Your task to perform on an android device: set default search engine in the chrome app Image 0: 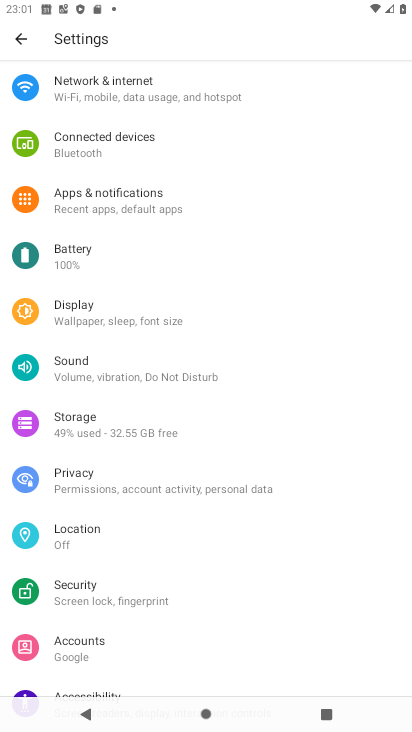
Step 0: press home button
Your task to perform on an android device: set default search engine in the chrome app Image 1: 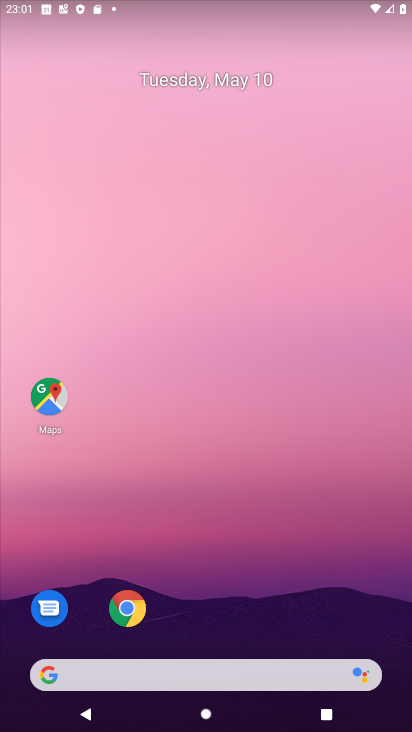
Step 1: drag from (251, 601) to (272, 233)
Your task to perform on an android device: set default search engine in the chrome app Image 2: 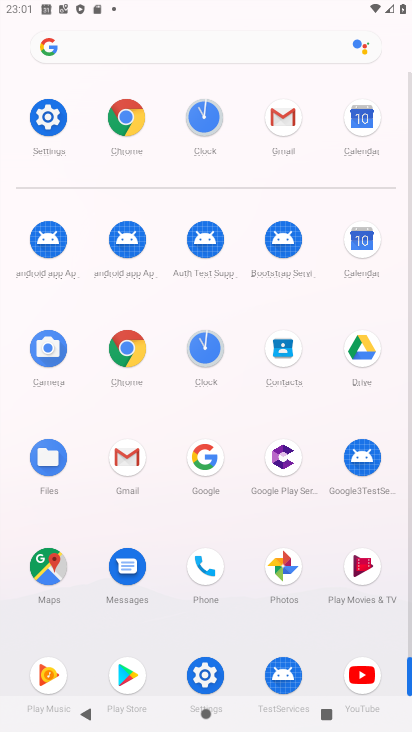
Step 2: click (132, 341)
Your task to perform on an android device: set default search engine in the chrome app Image 3: 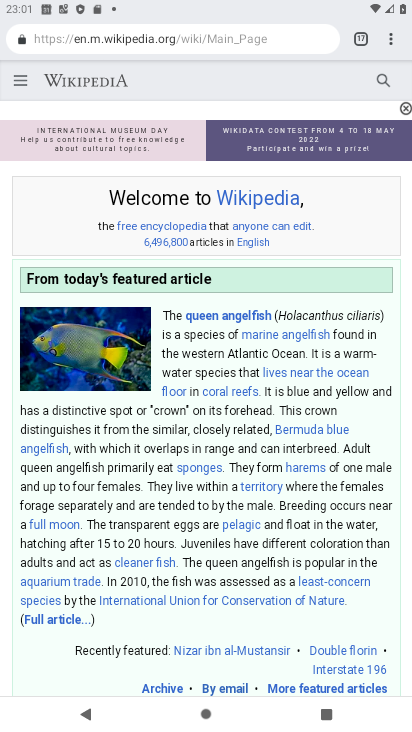
Step 3: click (378, 38)
Your task to perform on an android device: set default search engine in the chrome app Image 4: 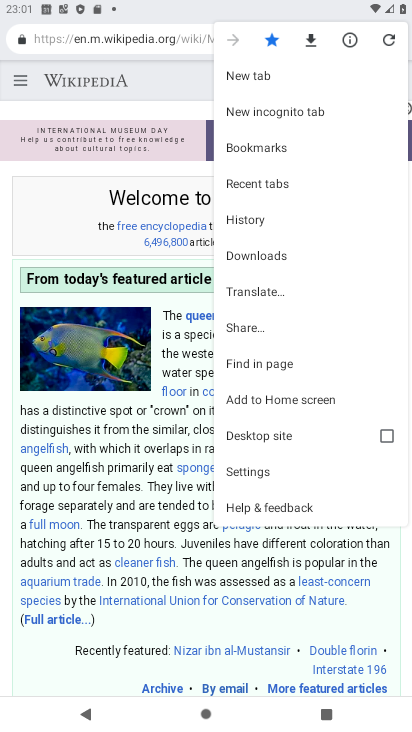
Step 4: click (269, 471)
Your task to perform on an android device: set default search engine in the chrome app Image 5: 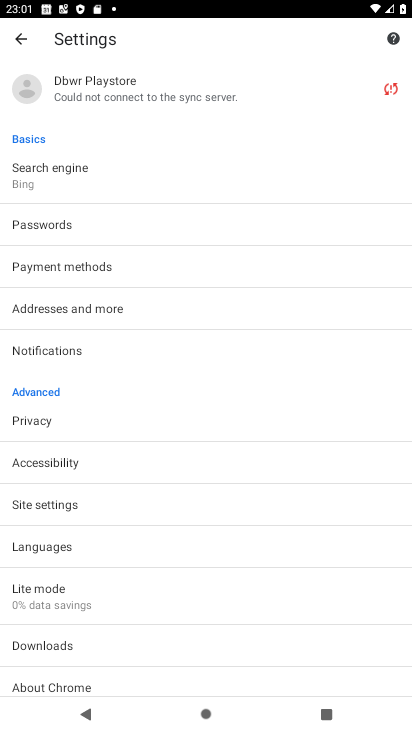
Step 5: click (84, 172)
Your task to perform on an android device: set default search engine in the chrome app Image 6: 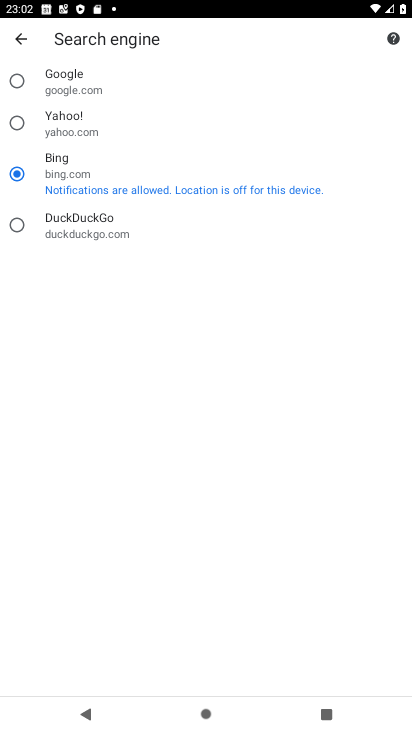
Step 6: click (67, 83)
Your task to perform on an android device: set default search engine in the chrome app Image 7: 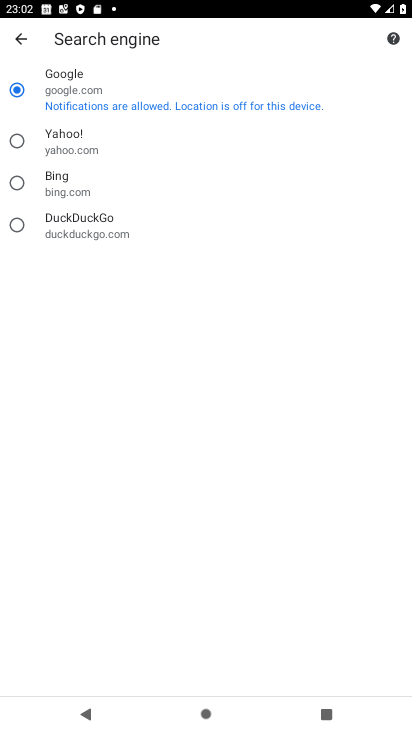
Step 7: task complete